Your task to perform on an android device: toggle wifi Image 0: 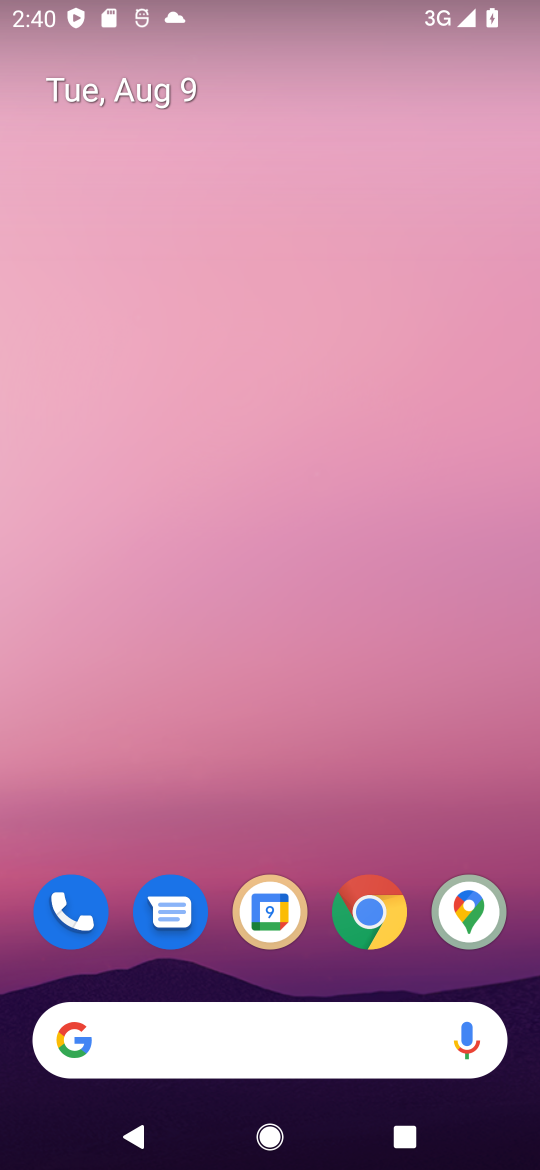
Step 0: drag from (317, 827) to (230, 342)
Your task to perform on an android device: toggle wifi Image 1: 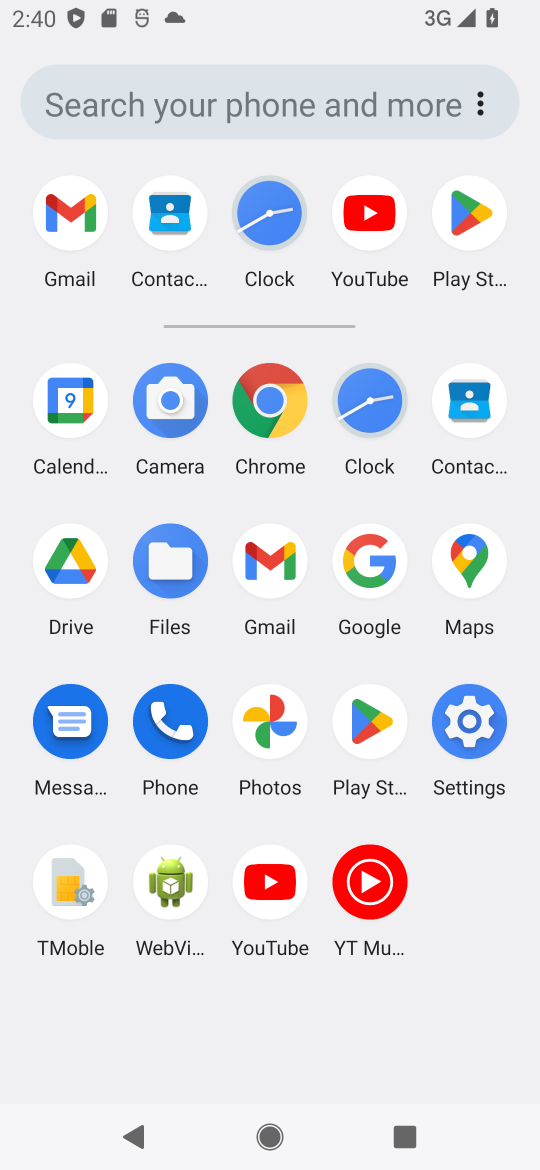
Step 1: click (472, 723)
Your task to perform on an android device: toggle wifi Image 2: 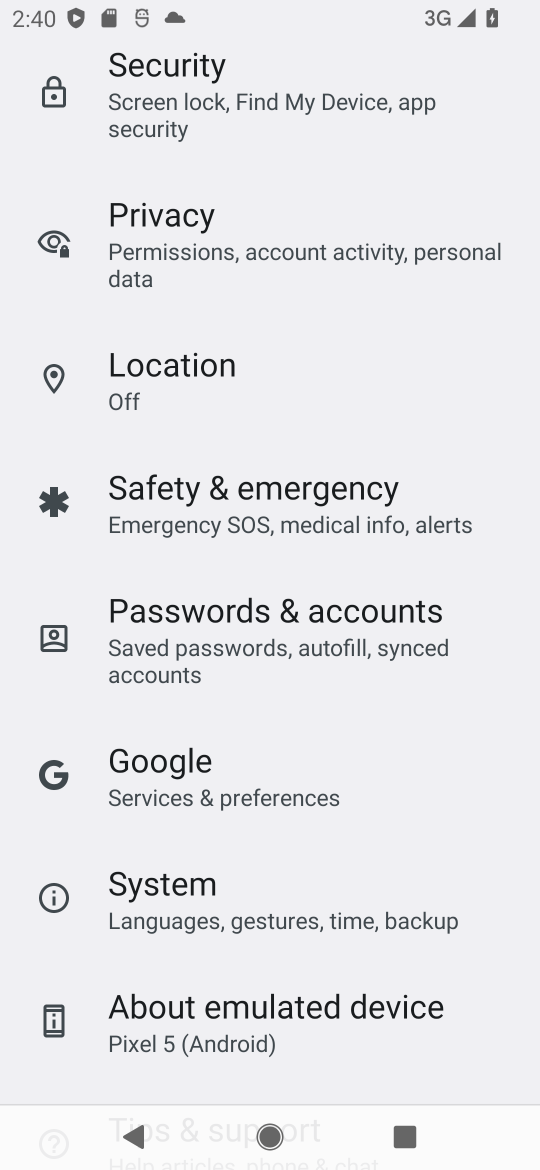
Step 2: drag from (303, 173) to (148, 969)
Your task to perform on an android device: toggle wifi Image 3: 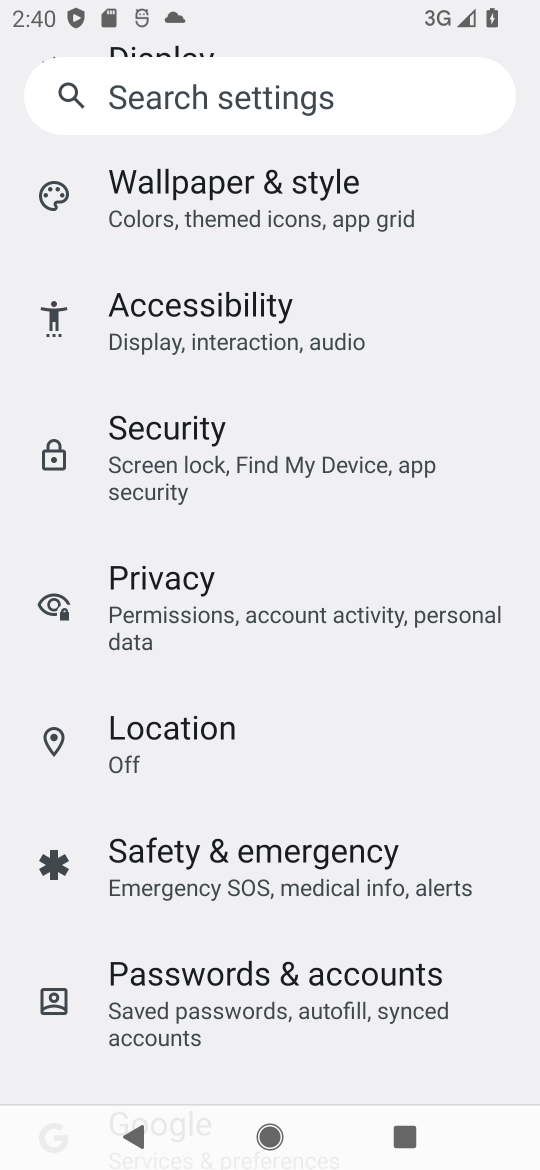
Step 3: drag from (209, 740) to (176, 936)
Your task to perform on an android device: toggle wifi Image 4: 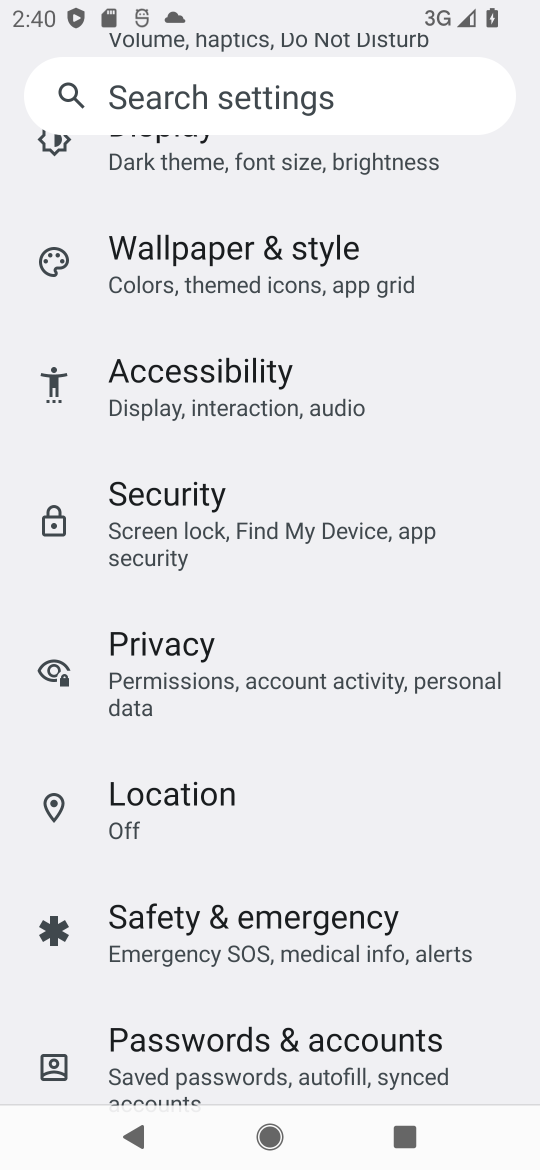
Step 4: drag from (281, 326) to (177, 890)
Your task to perform on an android device: toggle wifi Image 5: 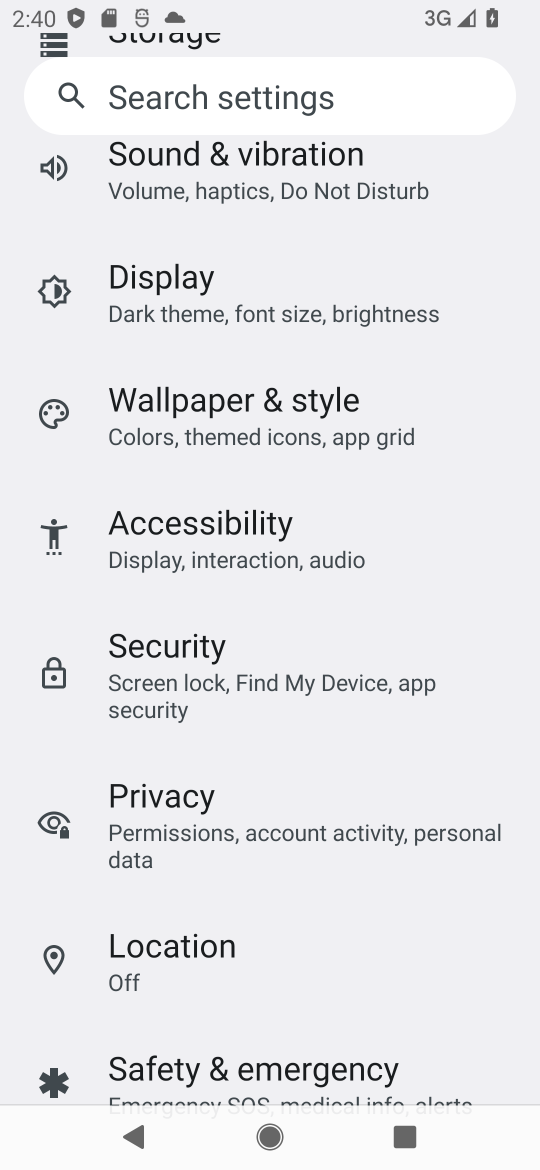
Step 5: drag from (219, 240) to (179, 849)
Your task to perform on an android device: toggle wifi Image 6: 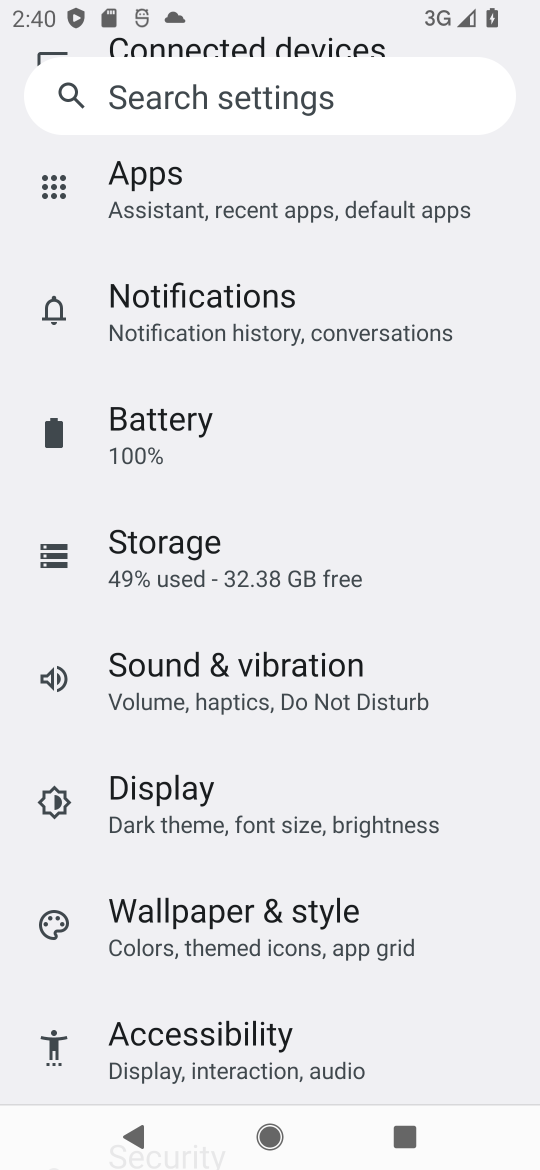
Step 6: drag from (206, 376) to (163, 1137)
Your task to perform on an android device: toggle wifi Image 7: 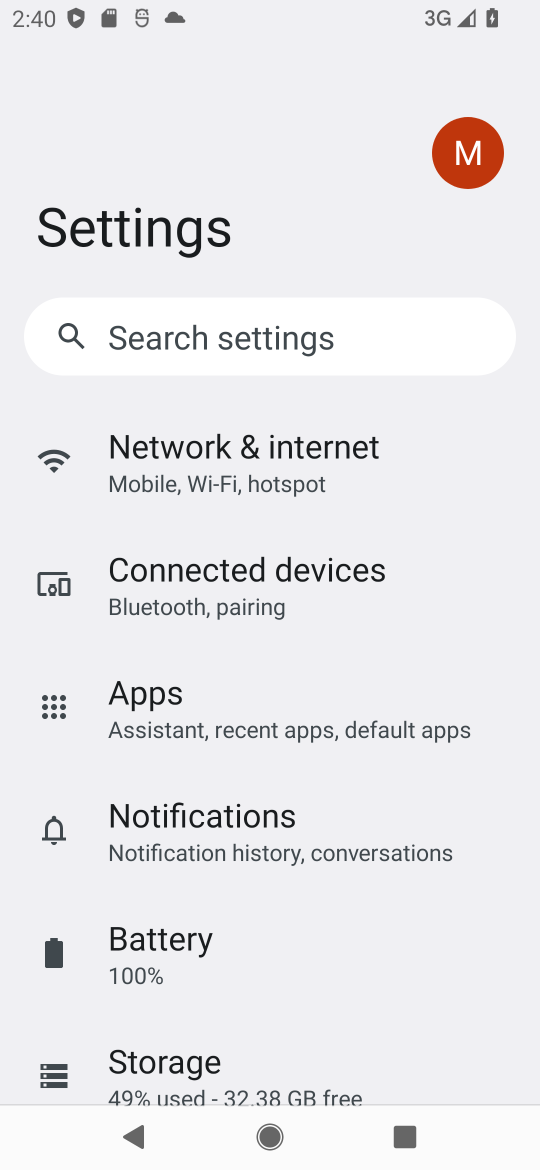
Step 7: click (194, 443)
Your task to perform on an android device: toggle wifi Image 8: 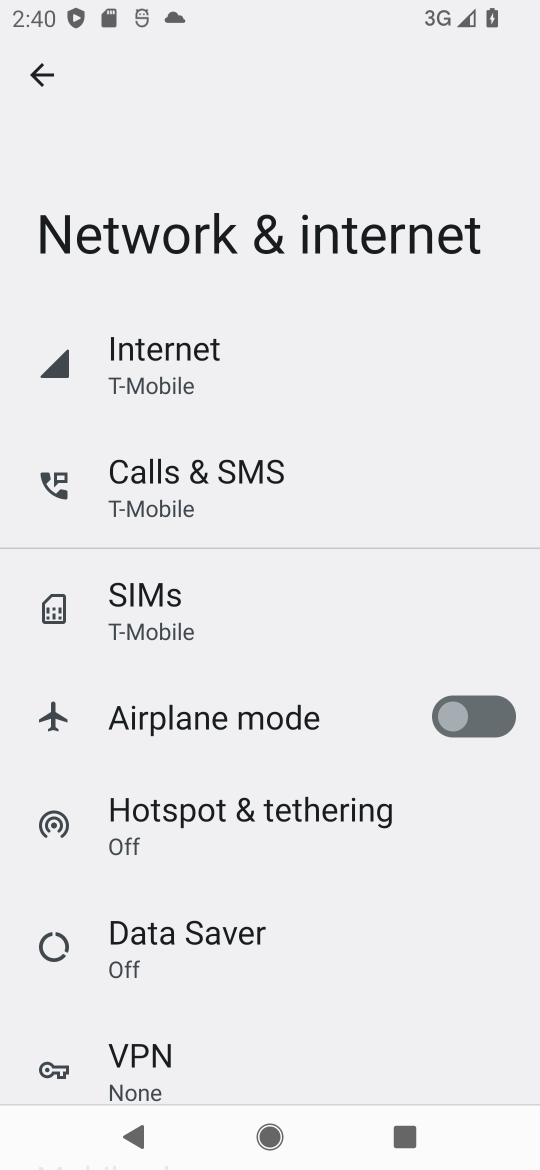
Step 8: click (177, 343)
Your task to perform on an android device: toggle wifi Image 9: 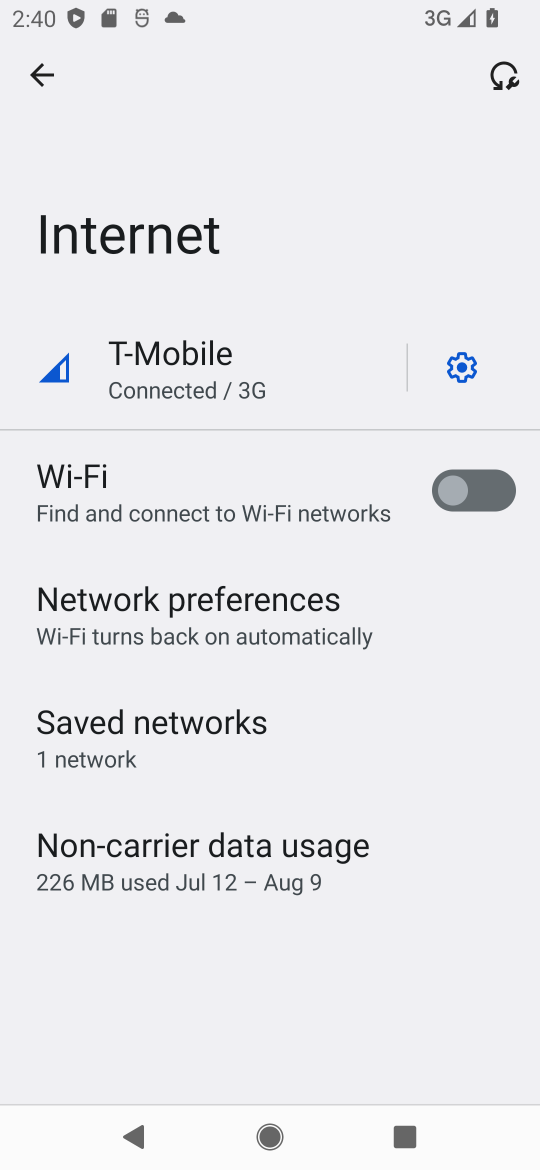
Step 9: click (450, 475)
Your task to perform on an android device: toggle wifi Image 10: 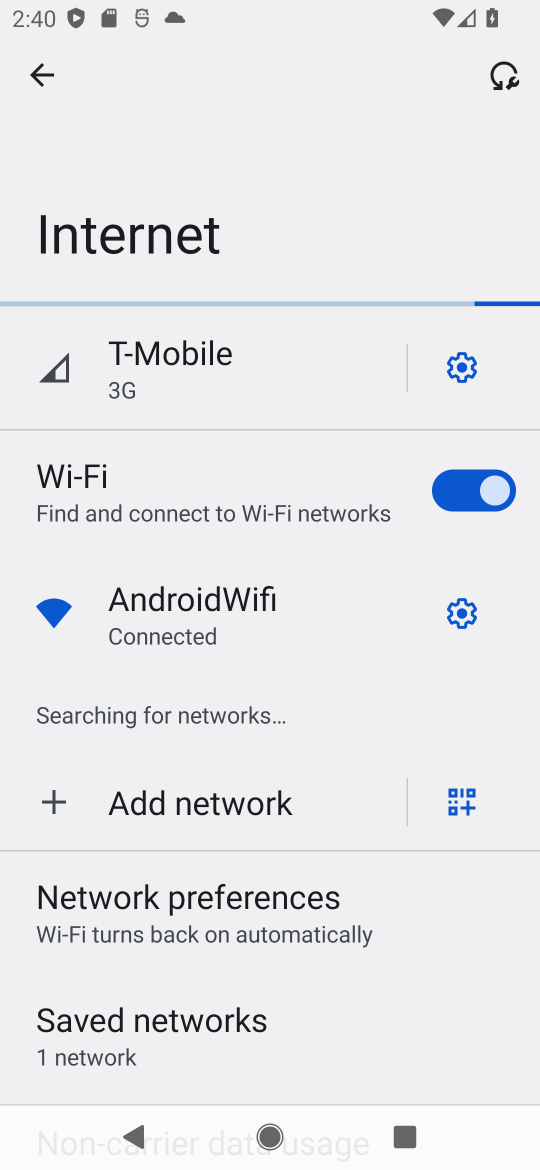
Step 10: task complete